Your task to perform on an android device: open chrome privacy settings Image 0: 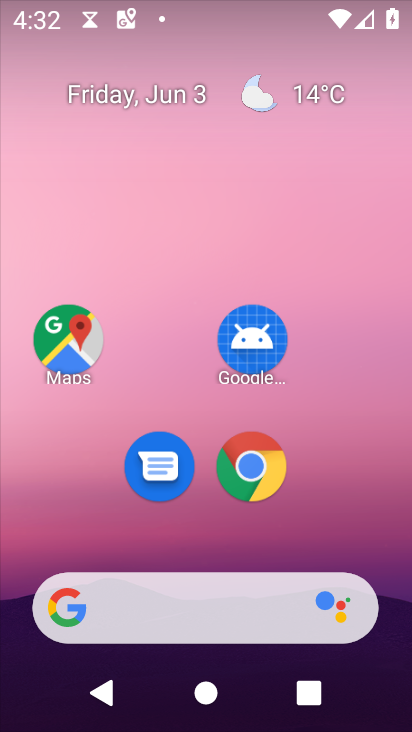
Step 0: click (262, 465)
Your task to perform on an android device: open chrome privacy settings Image 1: 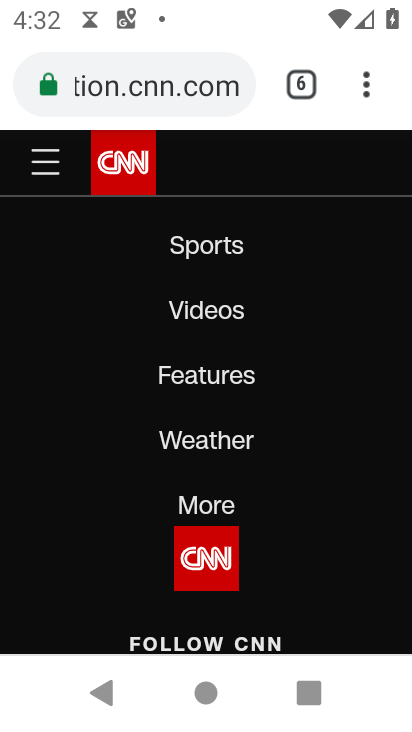
Step 1: click (370, 91)
Your task to perform on an android device: open chrome privacy settings Image 2: 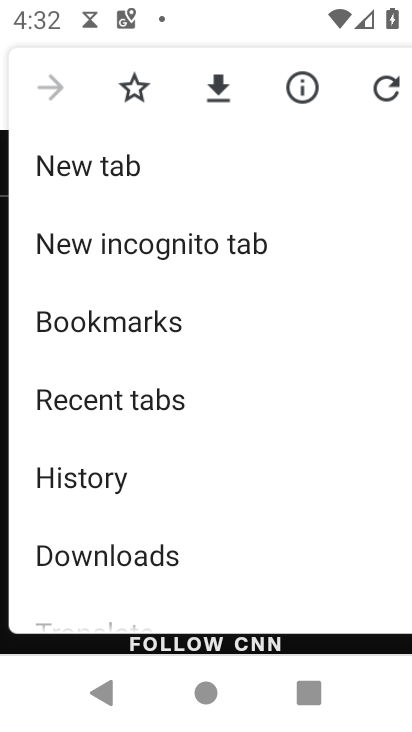
Step 2: drag from (324, 522) to (332, 357)
Your task to perform on an android device: open chrome privacy settings Image 3: 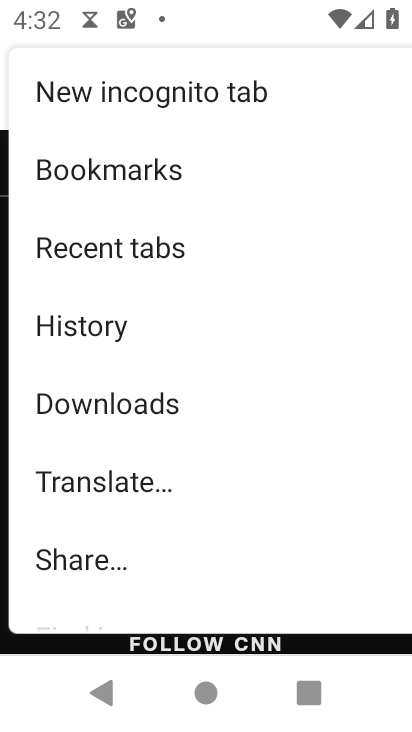
Step 3: drag from (270, 513) to (285, 292)
Your task to perform on an android device: open chrome privacy settings Image 4: 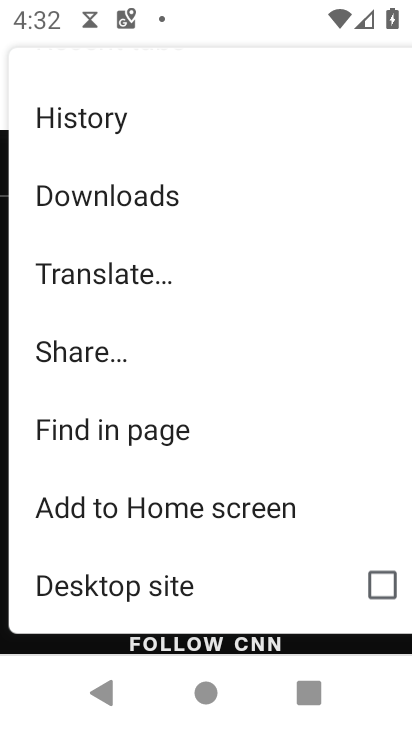
Step 4: drag from (260, 594) to (265, 531)
Your task to perform on an android device: open chrome privacy settings Image 5: 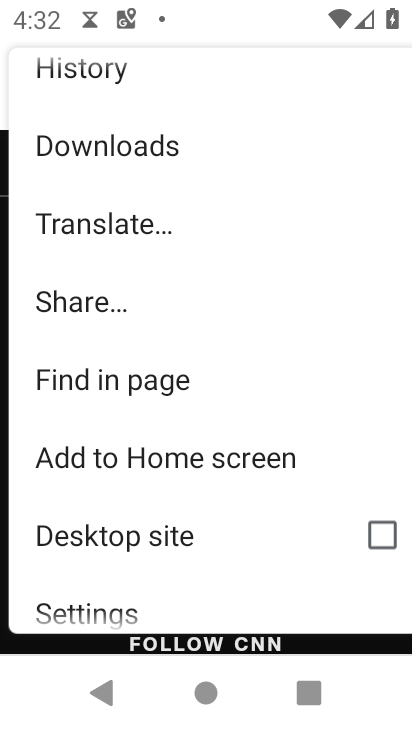
Step 5: click (122, 606)
Your task to perform on an android device: open chrome privacy settings Image 6: 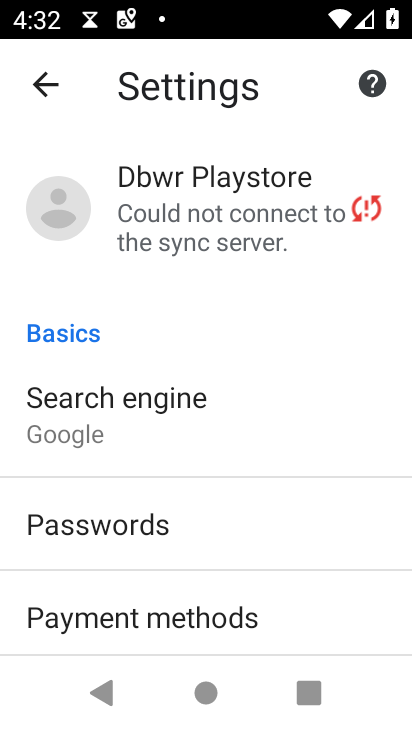
Step 6: drag from (273, 606) to (294, 375)
Your task to perform on an android device: open chrome privacy settings Image 7: 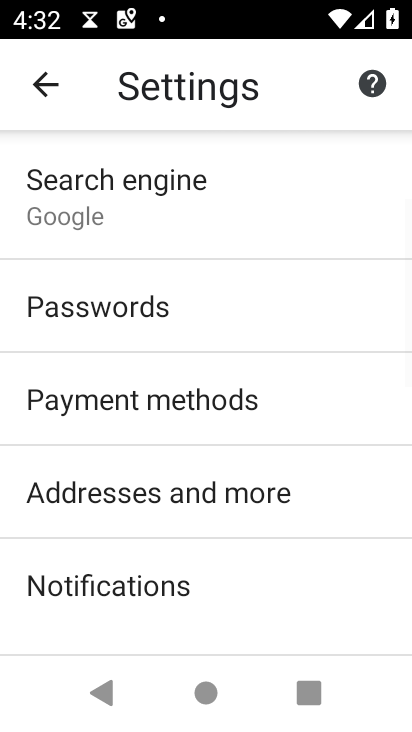
Step 7: click (296, 374)
Your task to perform on an android device: open chrome privacy settings Image 8: 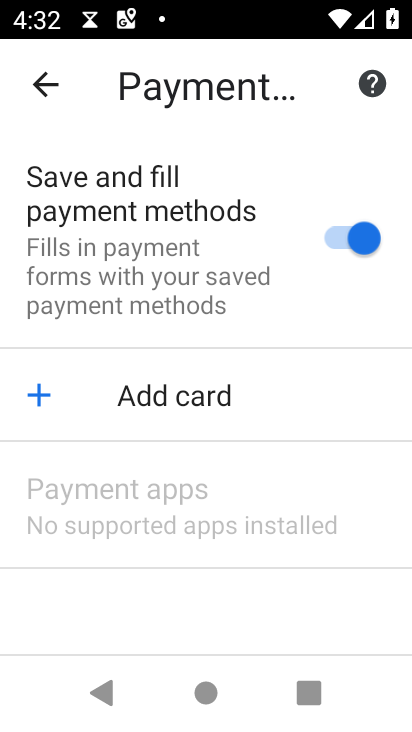
Step 8: press back button
Your task to perform on an android device: open chrome privacy settings Image 9: 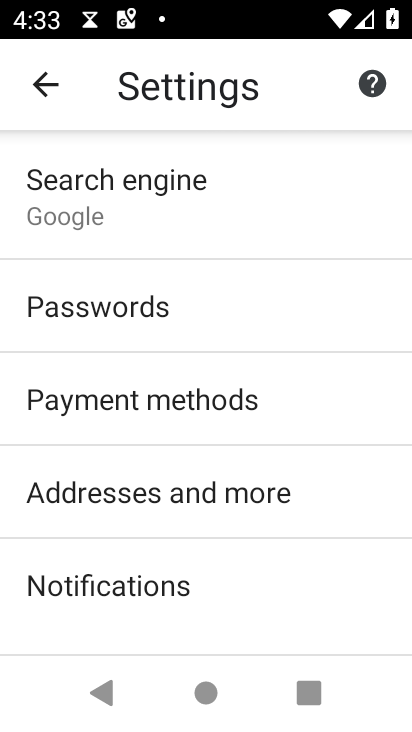
Step 9: drag from (406, 599) to (374, 266)
Your task to perform on an android device: open chrome privacy settings Image 10: 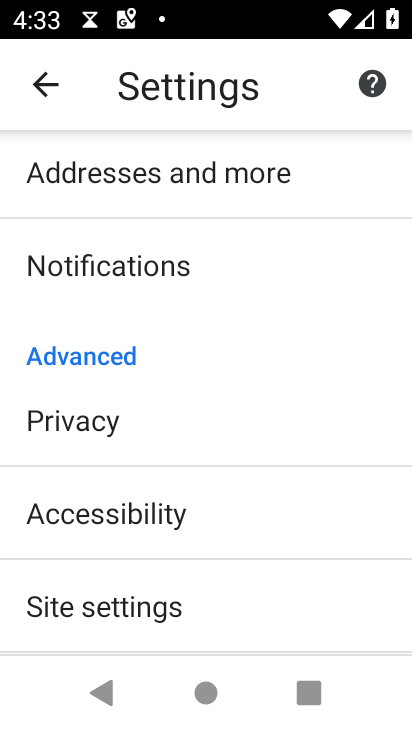
Step 10: click (222, 403)
Your task to perform on an android device: open chrome privacy settings Image 11: 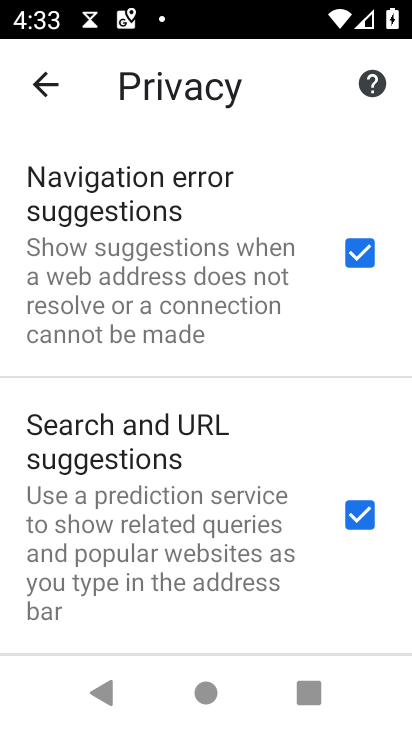
Step 11: task complete